Your task to perform on an android device: Go to privacy settings Image 0: 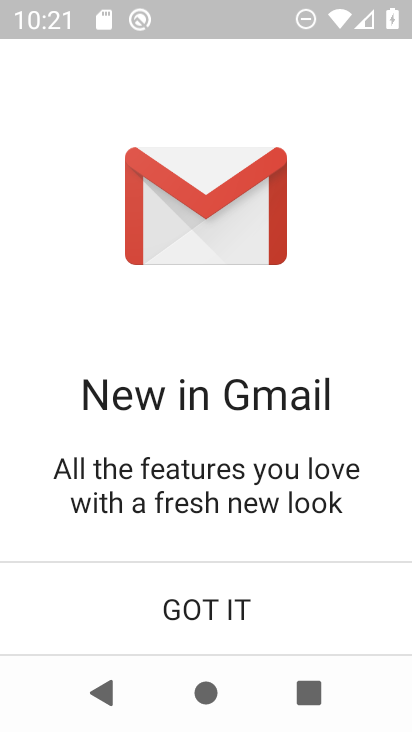
Step 0: press home button
Your task to perform on an android device: Go to privacy settings Image 1: 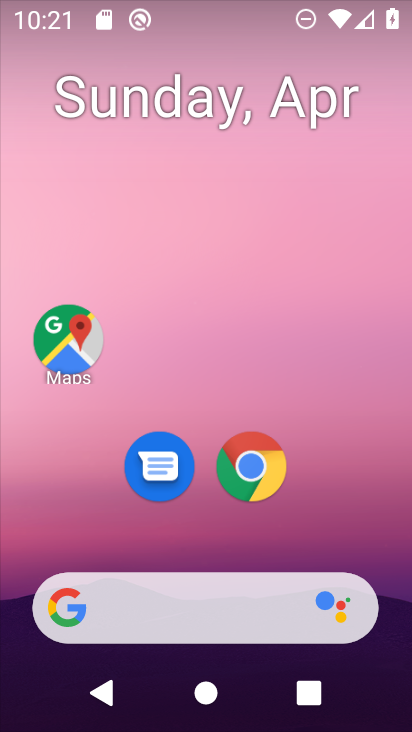
Step 1: drag from (355, 522) to (371, 99)
Your task to perform on an android device: Go to privacy settings Image 2: 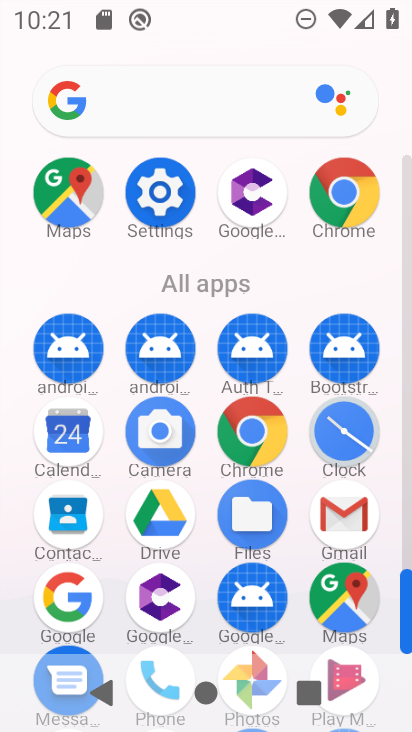
Step 2: click (160, 194)
Your task to perform on an android device: Go to privacy settings Image 3: 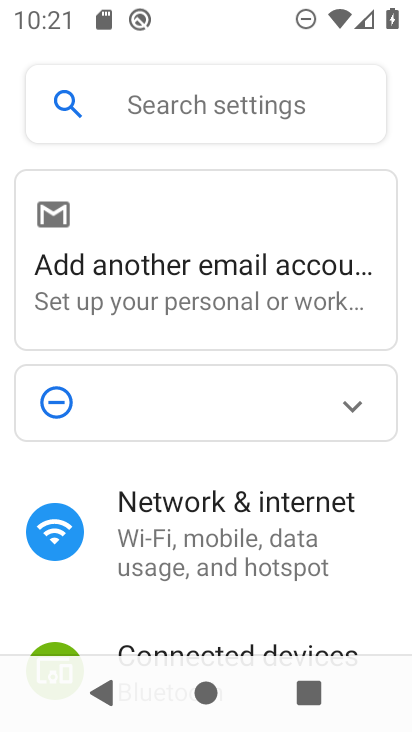
Step 3: drag from (370, 572) to (373, 397)
Your task to perform on an android device: Go to privacy settings Image 4: 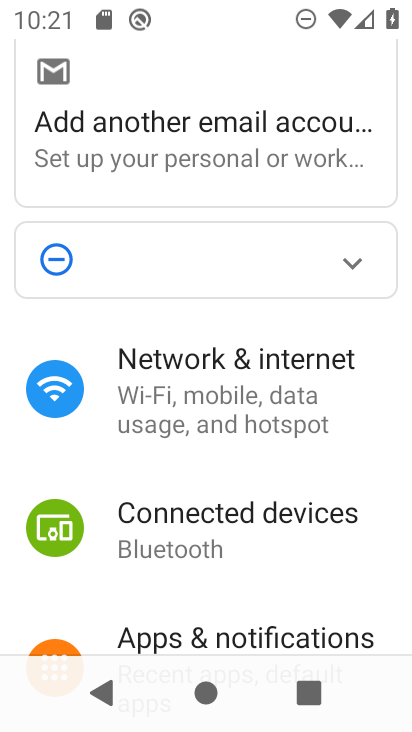
Step 4: drag from (373, 584) to (385, 430)
Your task to perform on an android device: Go to privacy settings Image 5: 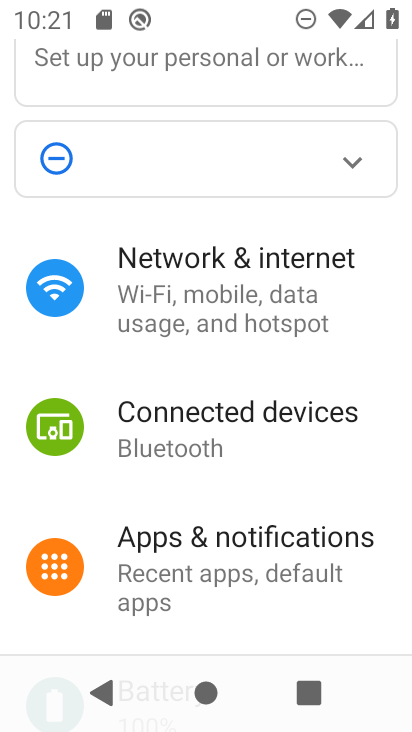
Step 5: drag from (370, 590) to (377, 404)
Your task to perform on an android device: Go to privacy settings Image 6: 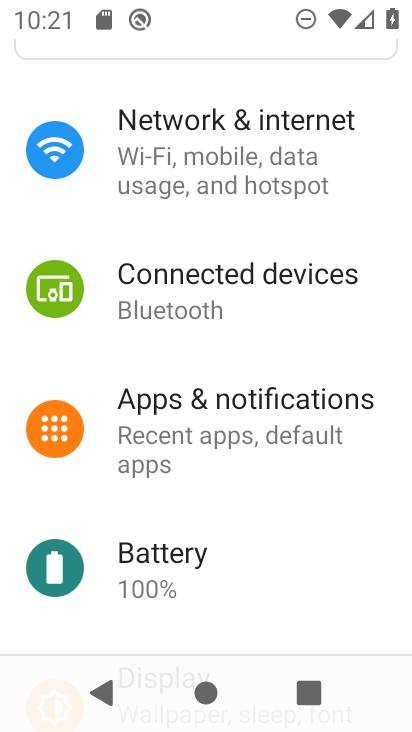
Step 6: drag from (354, 565) to (363, 410)
Your task to perform on an android device: Go to privacy settings Image 7: 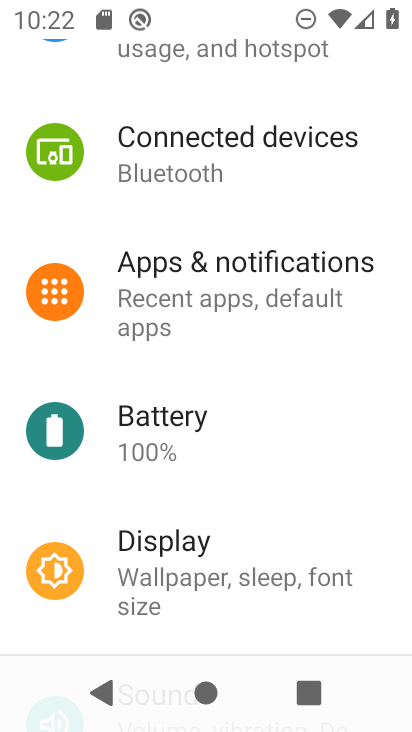
Step 7: drag from (355, 611) to (345, 409)
Your task to perform on an android device: Go to privacy settings Image 8: 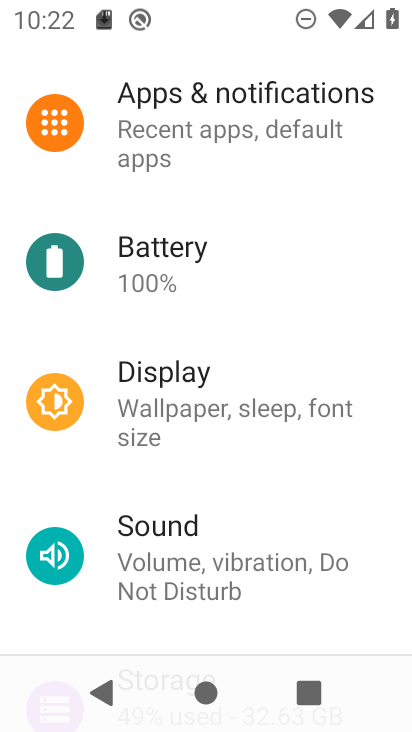
Step 8: drag from (369, 601) to (360, 416)
Your task to perform on an android device: Go to privacy settings Image 9: 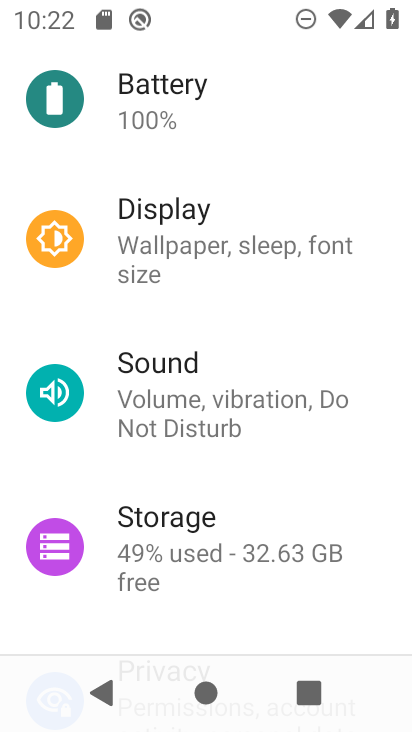
Step 9: drag from (335, 572) to (339, 329)
Your task to perform on an android device: Go to privacy settings Image 10: 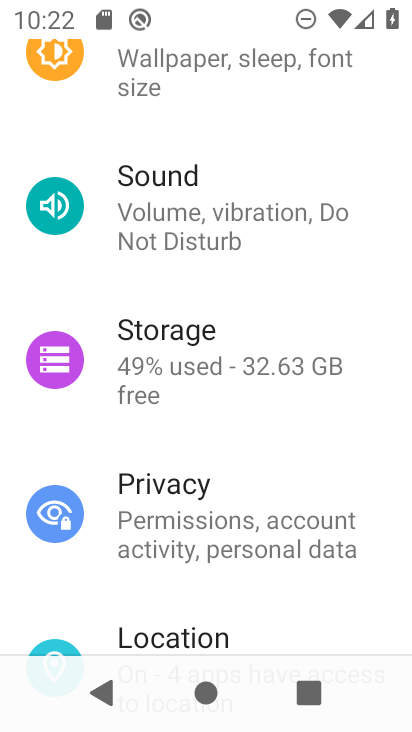
Step 10: drag from (362, 588) to (363, 408)
Your task to perform on an android device: Go to privacy settings Image 11: 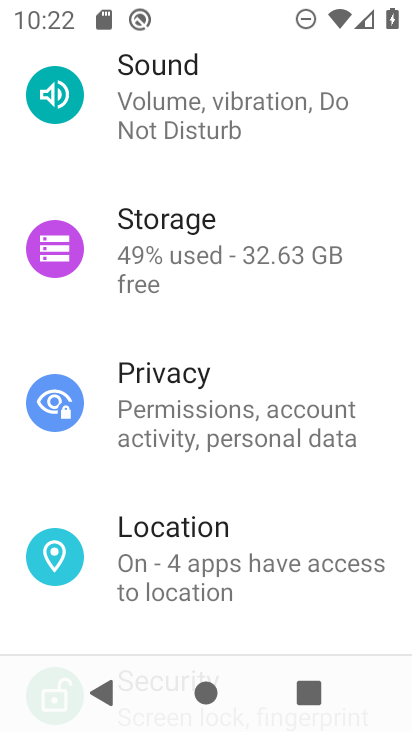
Step 11: click (238, 420)
Your task to perform on an android device: Go to privacy settings Image 12: 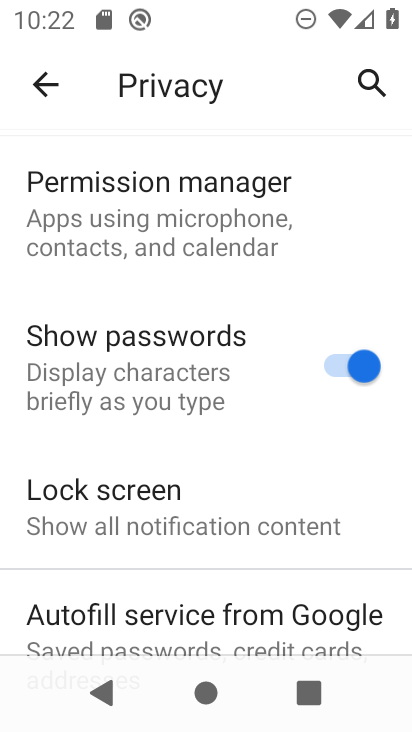
Step 12: task complete